Your task to perform on an android device: change the upload size in google photos Image 0: 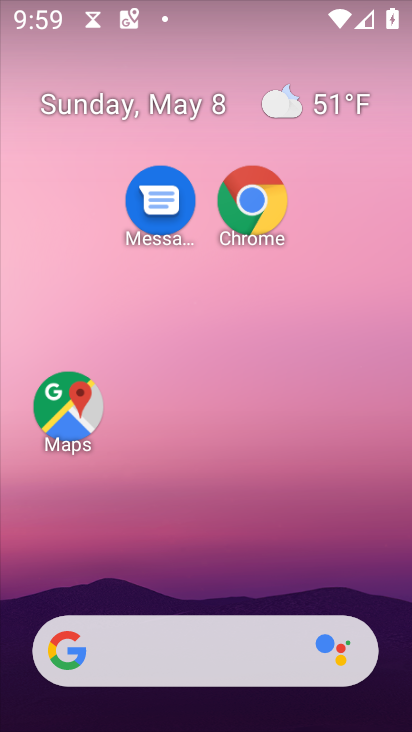
Step 0: drag from (315, 589) to (254, 2)
Your task to perform on an android device: change the upload size in google photos Image 1: 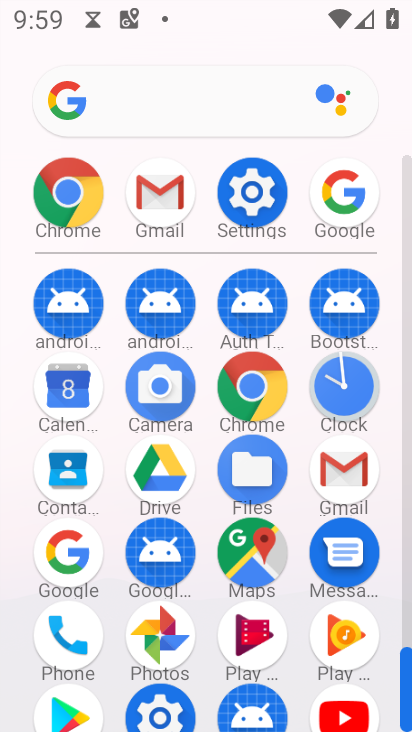
Step 1: click (186, 628)
Your task to perform on an android device: change the upload size in google photos Image 2: 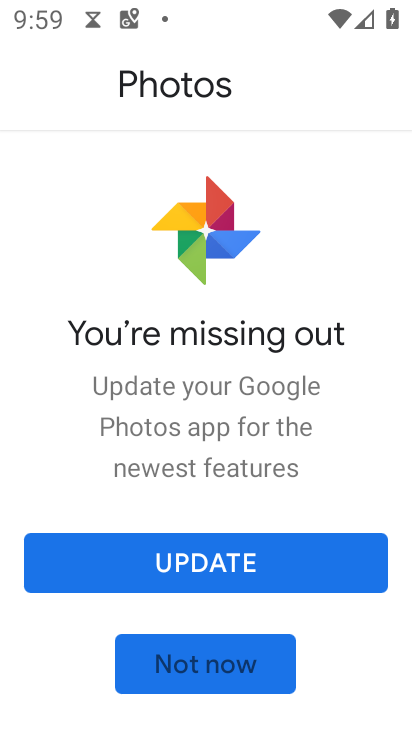
Step 2: click (209, 651)
Your task to perform on an android device: change the upload size in google photos Image 3: 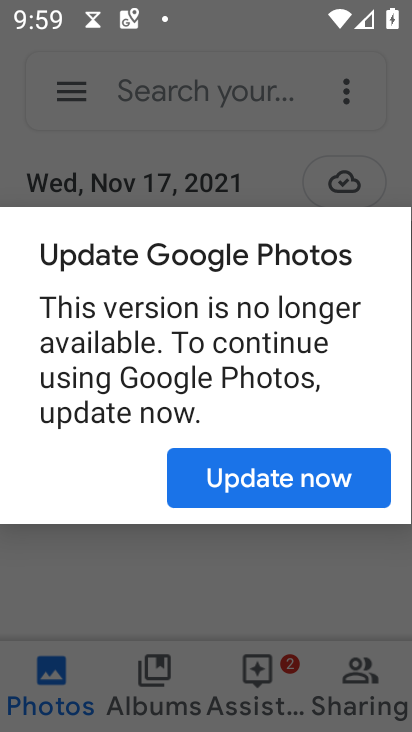
Step 3: click (295, 586)
Your task to perform on an android device: change the upload size in google photos Image 4: 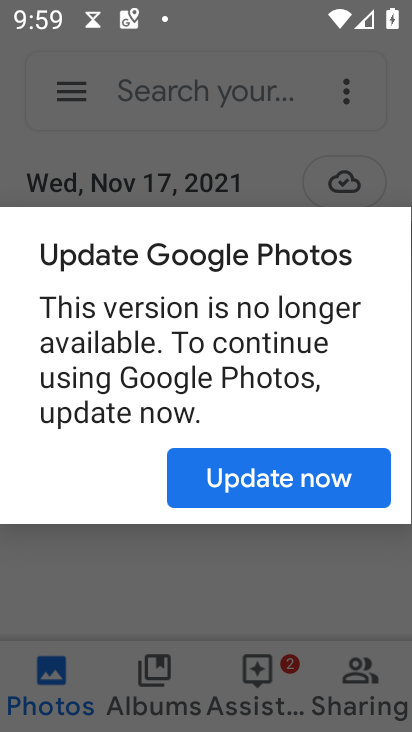
Step 4: click (321, 468)
Your task to perform on an android device: change the upload size in google photos Image 5: 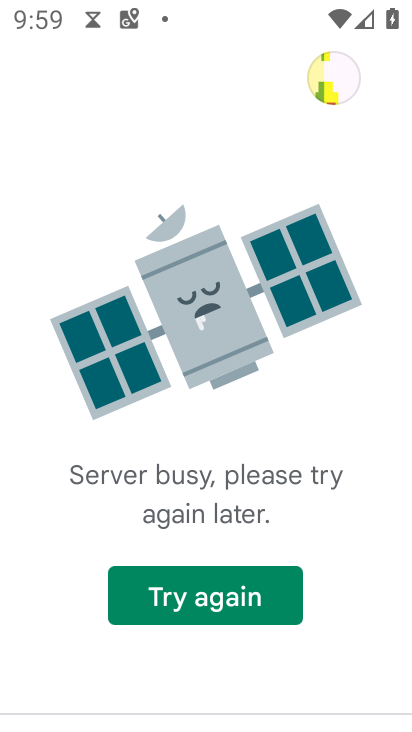
Step 5: click (332, 100)
Your task to perform on an android device: change the upload size in google photos Image 6: 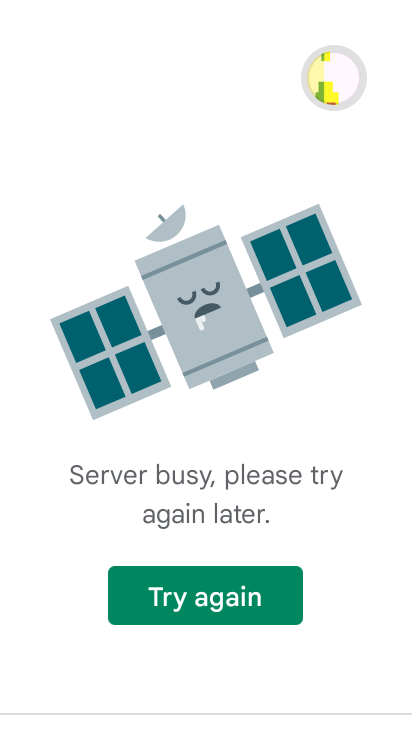
Step 6: task complete